Your task to perform on an android device: Go to wifi settings Image 0: 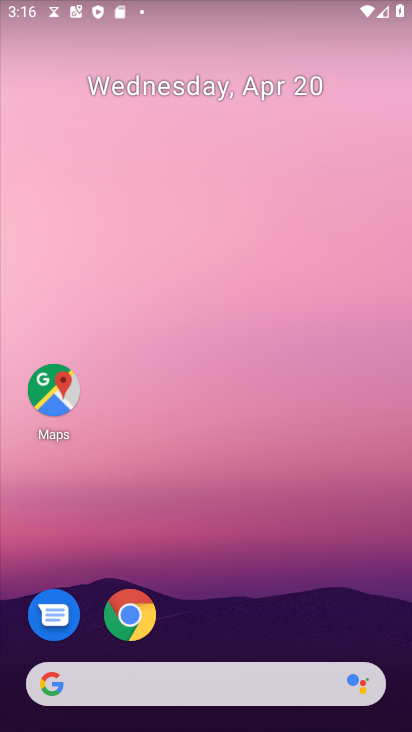
Step 0: drag from (189, 653) to (252, 210)
Your task to perform on an android device: Go to wifi settings Image 1: 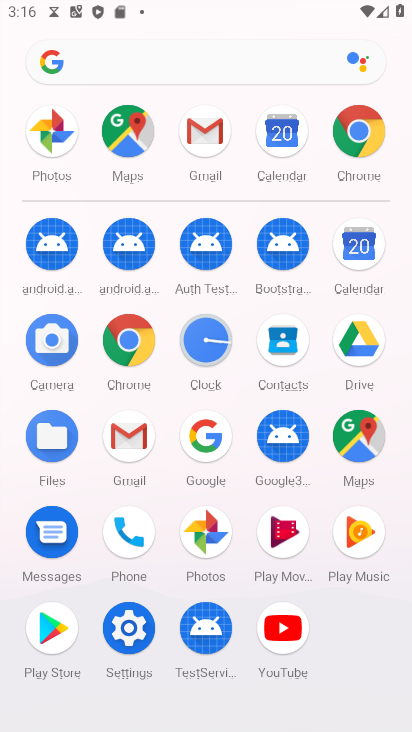
Step 1: click (138, 626)
Your task to perform on an android device: Go to wifi settings Image 2: 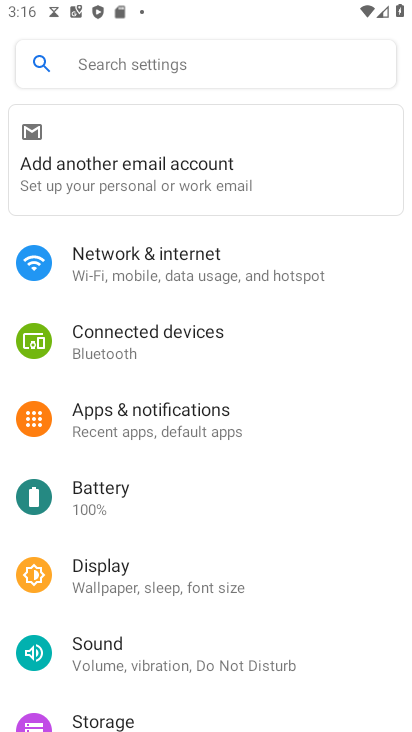
Step 2: click (114, 267)
Your task to perform on an android device: Go to wifi settings Image 3: 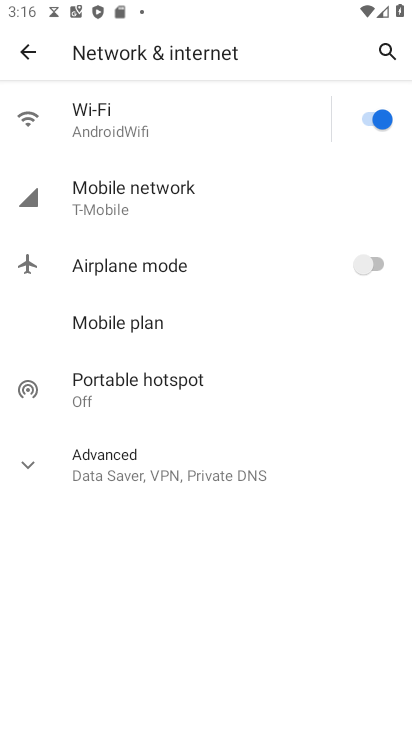
Step 3: click (189, 145)
Your task to perform on an android device: Go to wifi settings Image 4: 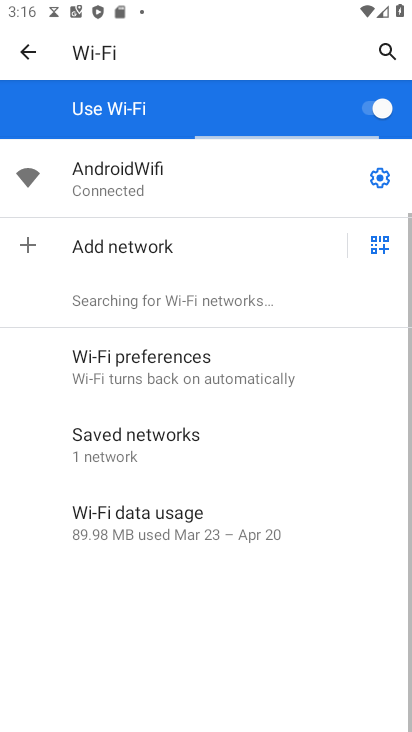
Step 4: click (374, 180)
Your task to perform on an android device: Go to wifi settings Image 5: 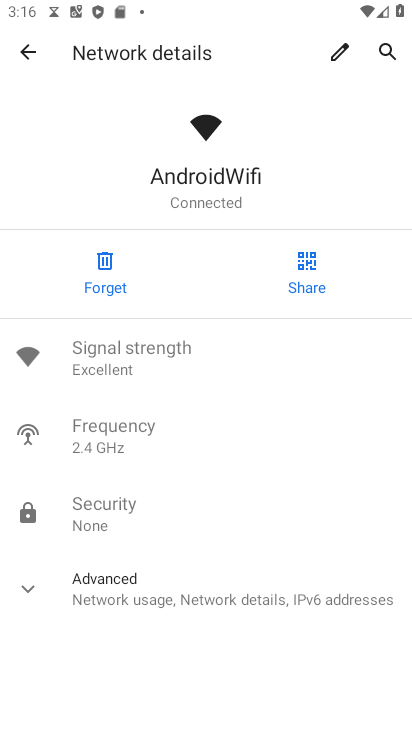
Step 5: task complete